Your task to perform on an android device: change the clock display to show seconds Image 0: 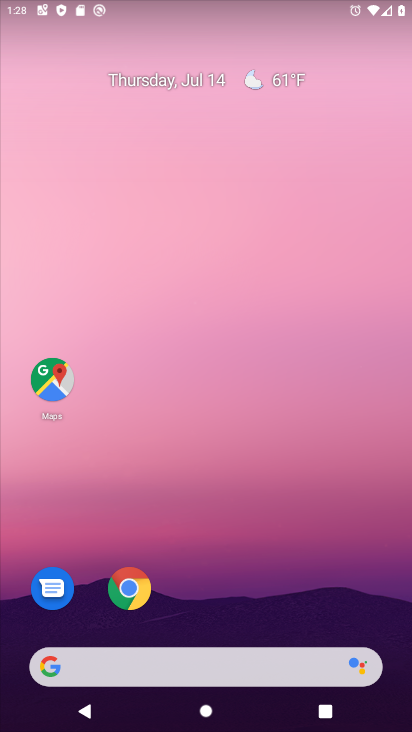
Step 0: drag from (292, 597) to (326, 112)
Your task to perform on an android device: change the clock display to show seconds Image 1: 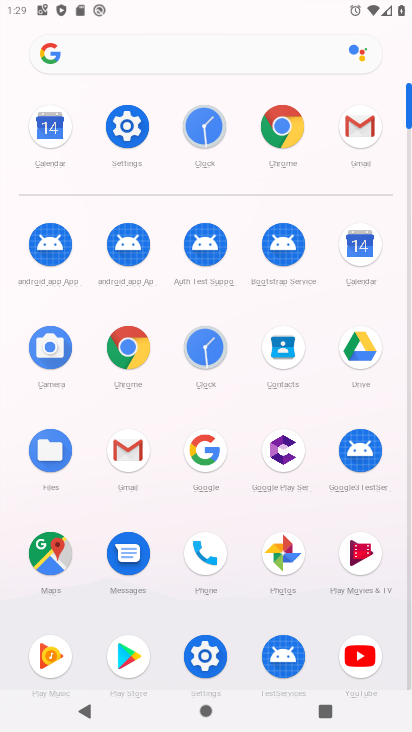
Step 1: click (198, 343)
Your task to perform on an android device: change the clock display to show seconds Image 2: 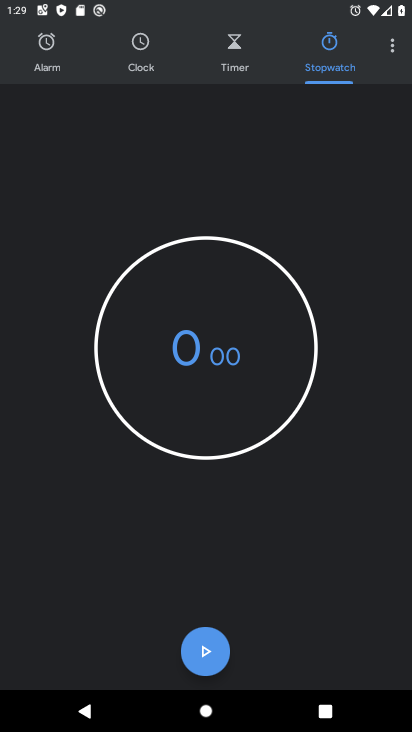
Step 2: click (390, 40)
Your task to perform on an android device: change the clock display to show seconds Image 3: 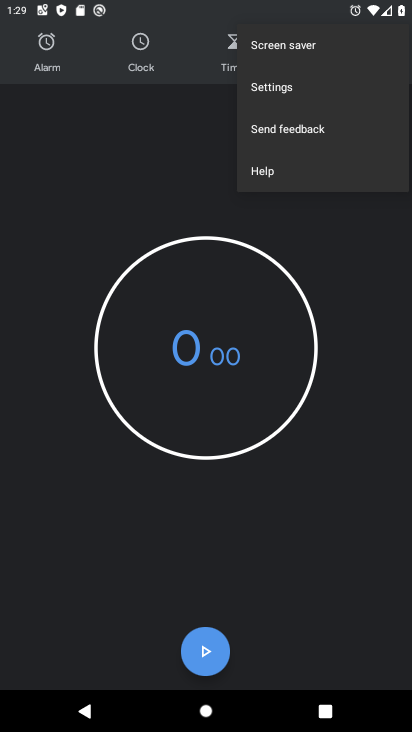
Step 3: click (287, 89)
Your task to perform on an android device: change the clock display to show seconds Image 4: 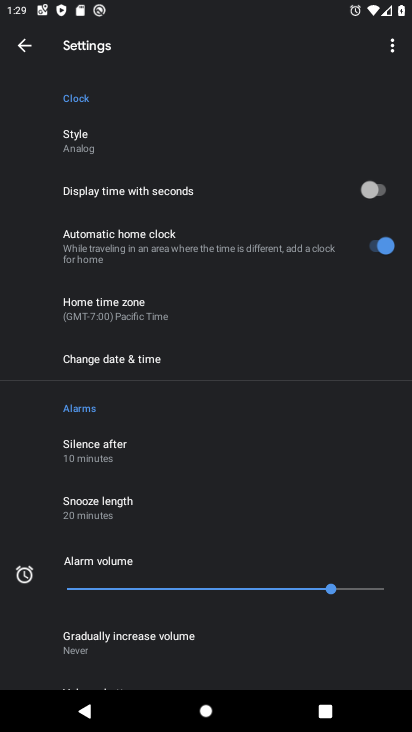
Step 4: click (101, 134)
Your task to perform on an android device: change the clock display to show seconds Image 5: 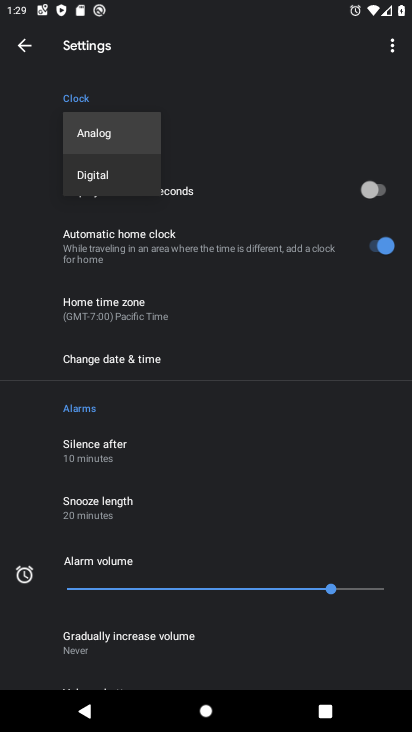
Step 5: click (97, 170)
Your task to perform on an android device: change the clock display to show seconds Image 6: 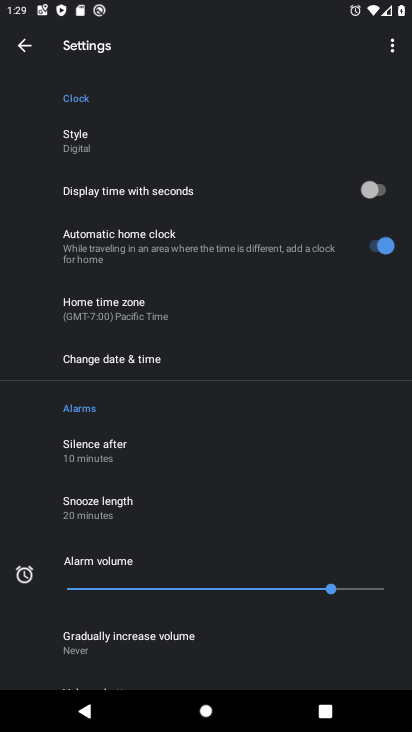
Step 6: task complete